Your task to perform on an android device: Go to notification settings Image 0: 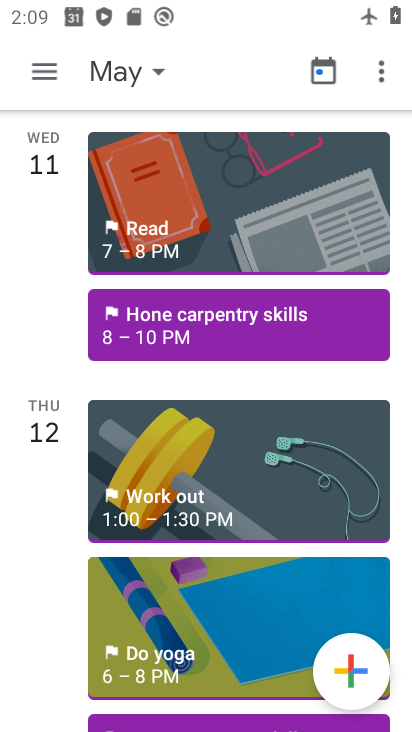
Step 0: press home button
Your task to perform on an android device: Go to notification settings Image 1: 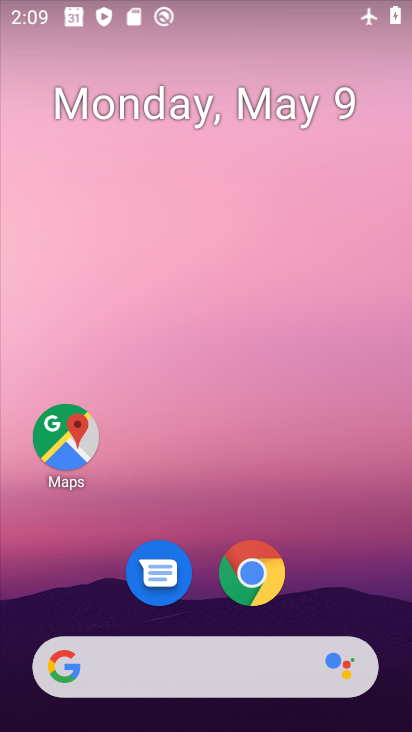
Step 1: drag from (394, 667) to (311, 187)
Your task to perform on an android device: Go to notification settings Image 2: 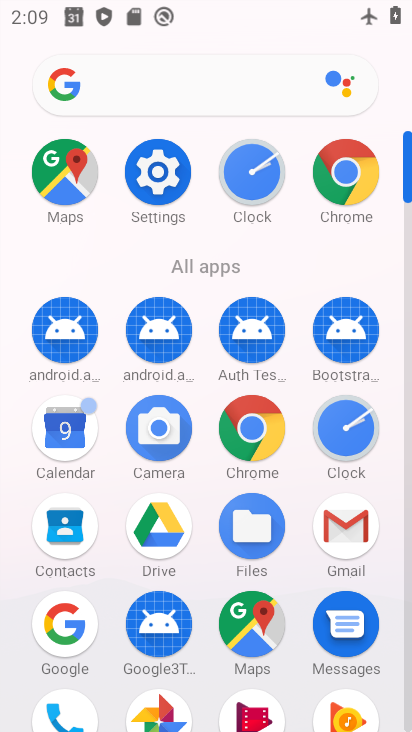
Step 2: click (150, 174)
Your task to perform on an android device: Go to notification settings Image 3: 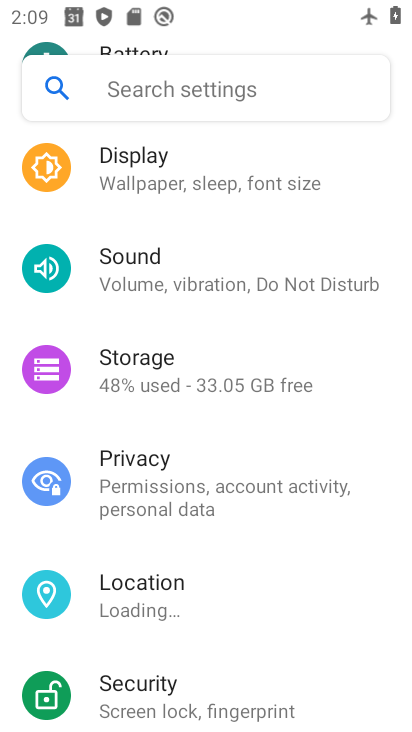
Step 3: drag from (184, 239) to (230, 481)
Your task to perform on an android device: Go to notification settings Image 4: 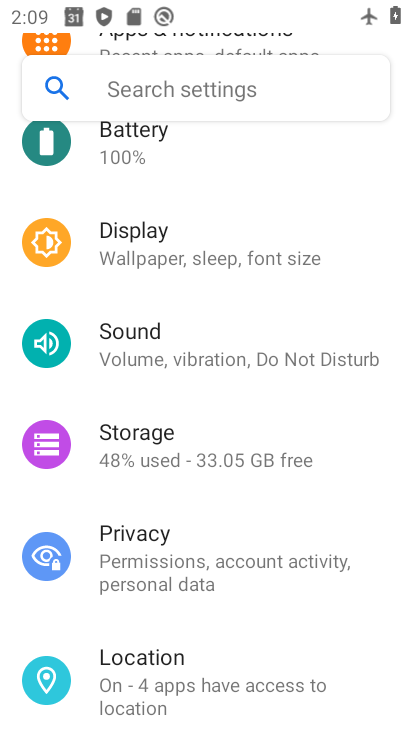
Step 4: drag from (159, 208) to (181, 472)
Your task to perform on an android device: Go to notification settings Image 5: 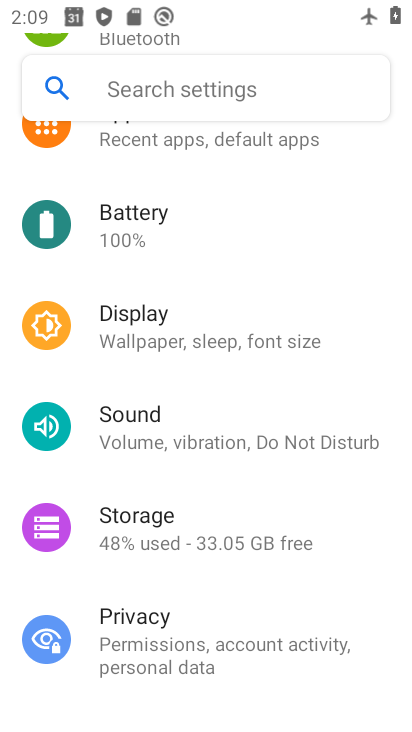
Step 5: drag from (167, 192) to (213, 523)
Your task to perform on an android device: Go to notification settings Image 6: 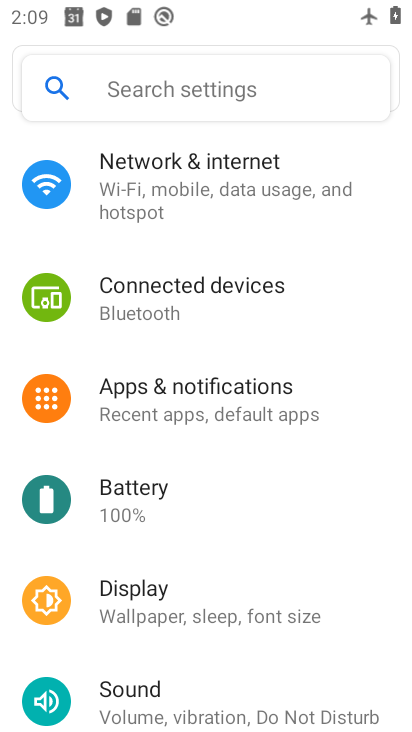
Step 6: click (147, 389)
Your task to perform on an android device: Go to notification settings Image 7: 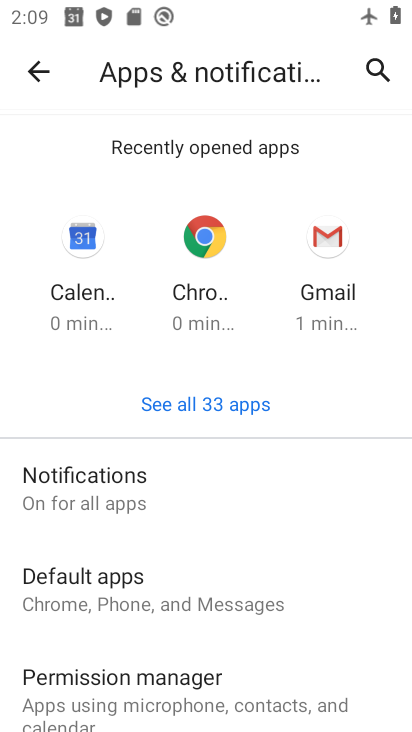
Step 7: drag from (204, 508) to (201, 206)
Your task to perform on an android device: Go to notification settings Image 8: 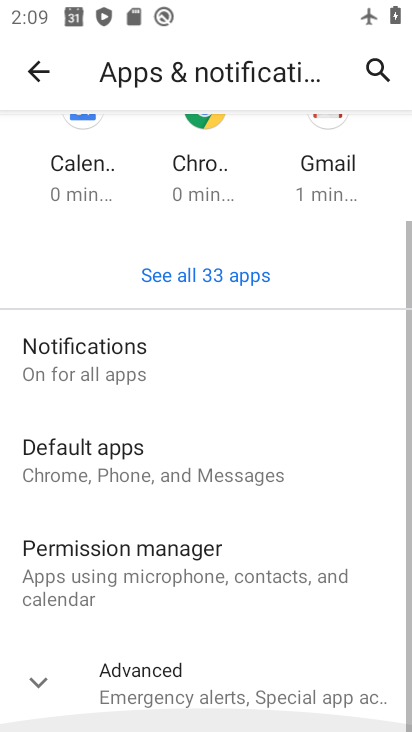
Step 8: drag from (253, 421) to (241, 226)
Your task to perform on an android device: Go to notification settings Image 9: 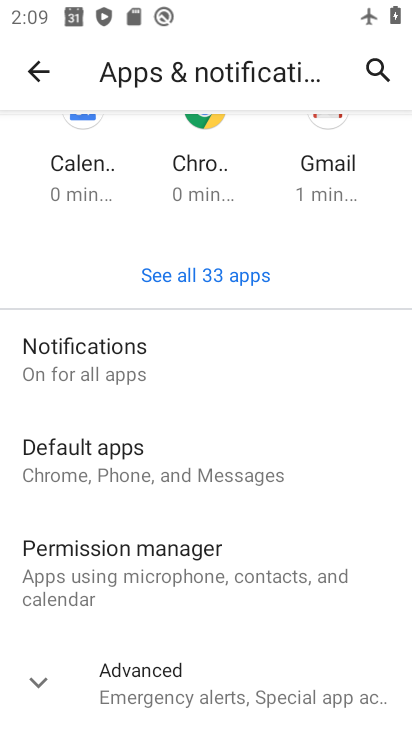
Step 9: click (165, 698)
Your task to perform on an android device: Go to notification settings Image 10: 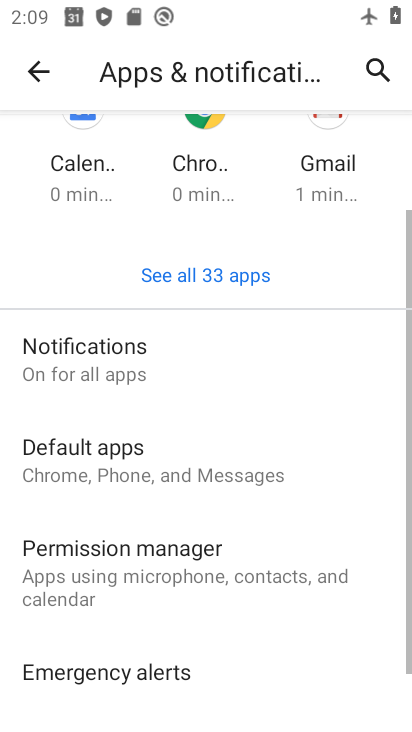
Step 10: drag from (165, 633) to (134, 306)
Your task to perform on an android device: Go to notification settings Image 11: 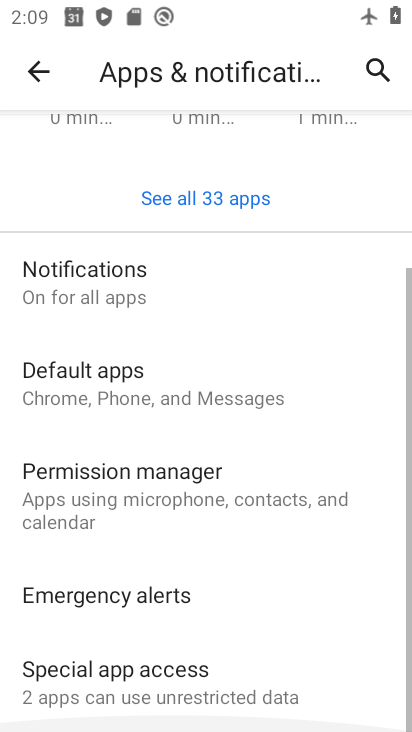
Step 11: drag from (205, 569) to (205, 234)
Your task to perform on an android device: Go to notification settings Image 12: 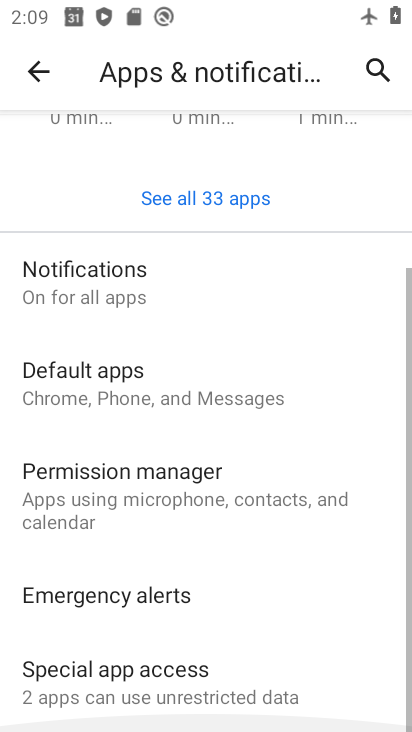
Step 12: drag from (221, 536) to (164, 150)
Your task to perform on an android device: Go to notification settings Image 13: 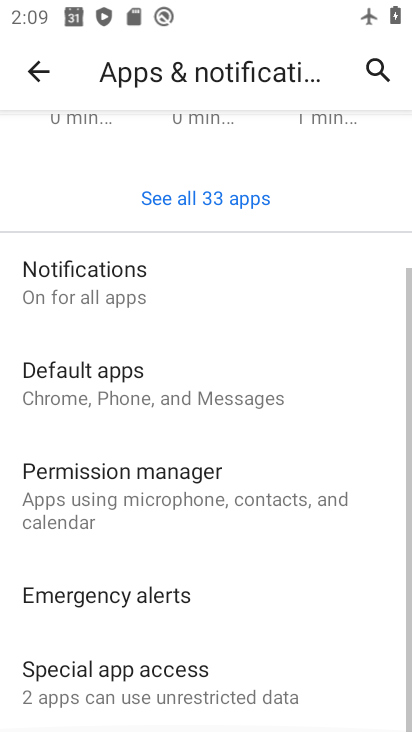
Step 13: drag from (183, 510) to (166, 163)
Your task to perform on an android device: Go to notification settings Image 14: 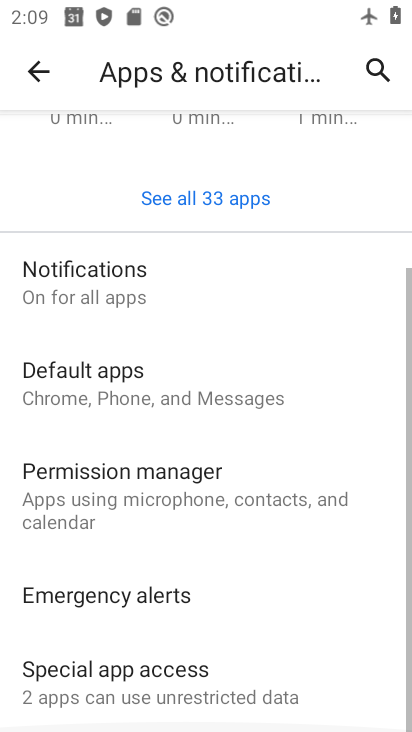
Step 14: drag from (159, 609) to (151, 282)
Your task to perform on an android device: Go to notification settings Image 15: 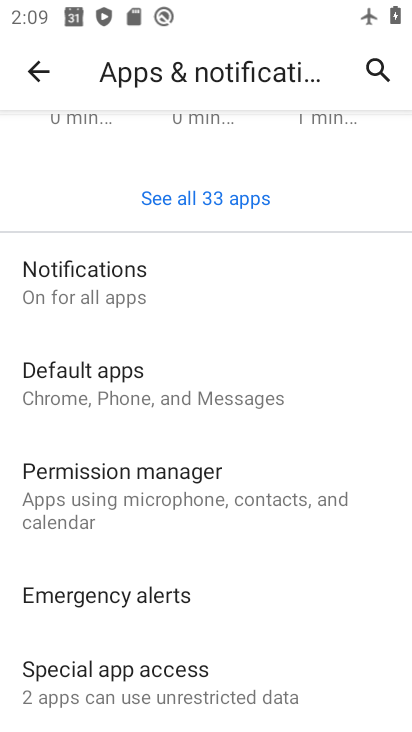
Step 15: click (98, 282)
Your task to perform on an android device: Go to notification settings Image 16: 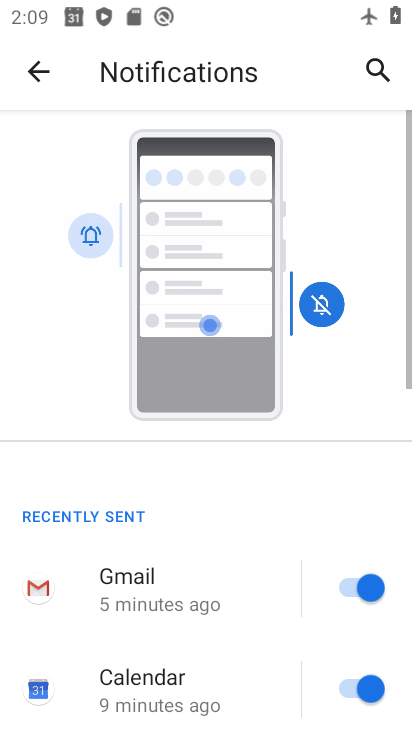
Step 16: drag from (161, 590) to (147, 89)
Your task to perform on an android device: Go to notification settings Image 17: 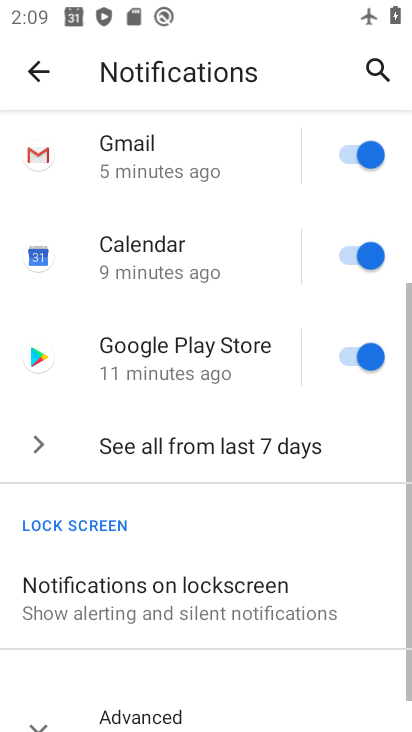
Step 17: drag from (199, 408) to (221, 131)
Your task to perform on an android device: Go to notification settings Image 18: 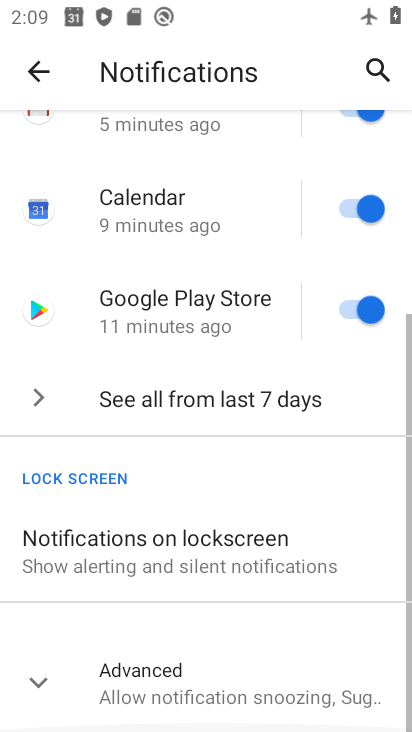
Step 18: drag from (281, 477) to (278, 254)
Your task to perform on an android device: Go to notification settings Image 19: 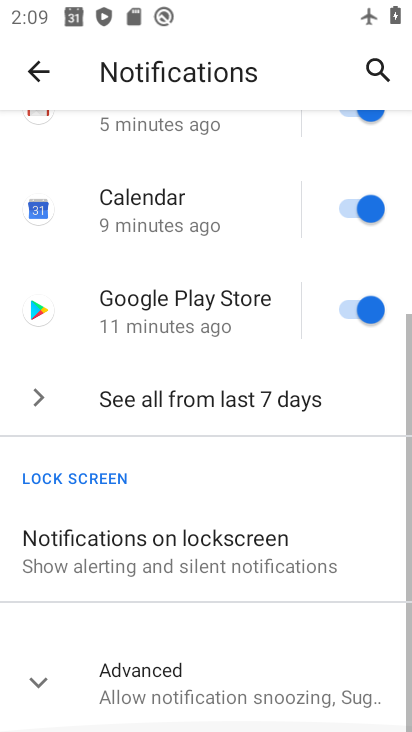
Step 19: drag from (252, 487) to (225, 236)
Your task to perform on an android device: Go to notification settings Image 20: 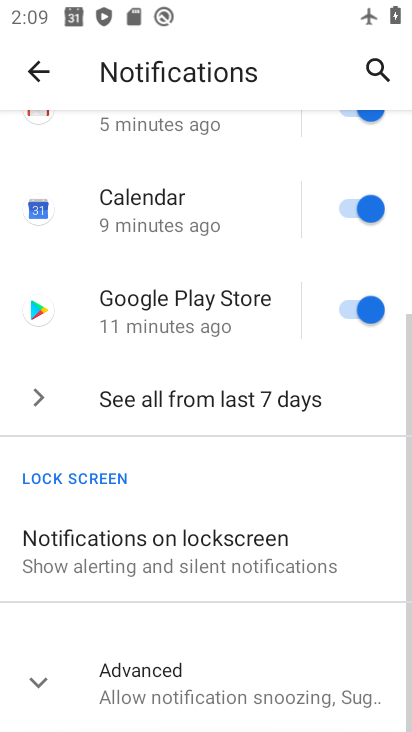
Step 20: click (157, 691)
Your task to perform on an android device: Go to notification settings Image 21: 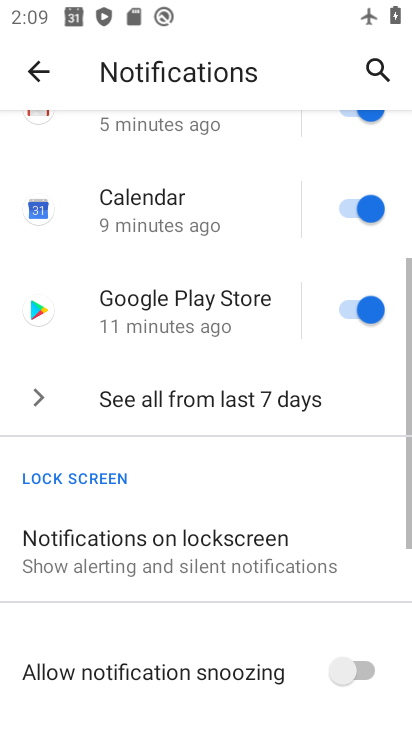
Step 21: task complete